Your task to perform on an android device: Search for sushi restaurants on Maps Image 0: 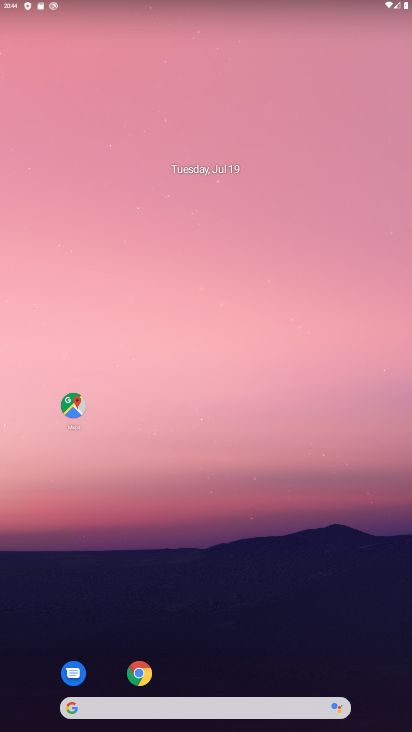
Step 0: click (77, 404)
Your task to perform on an android device: Search for sushi restaurants on Maps Image 1: 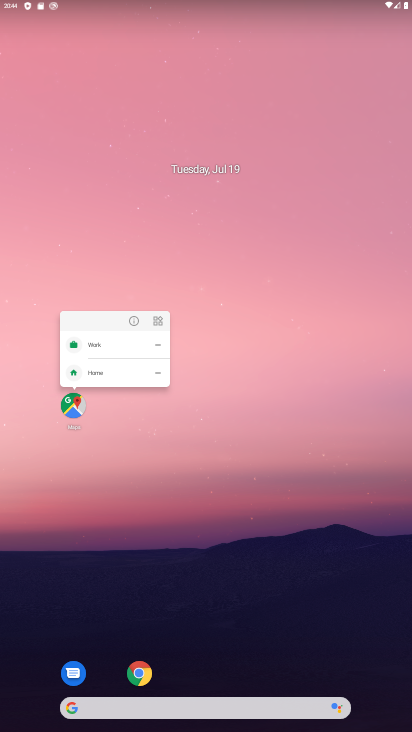
Step 1: click (76, 403)
Your task to perform on an android device: Search for sushi restaurants on Maps Image 2: 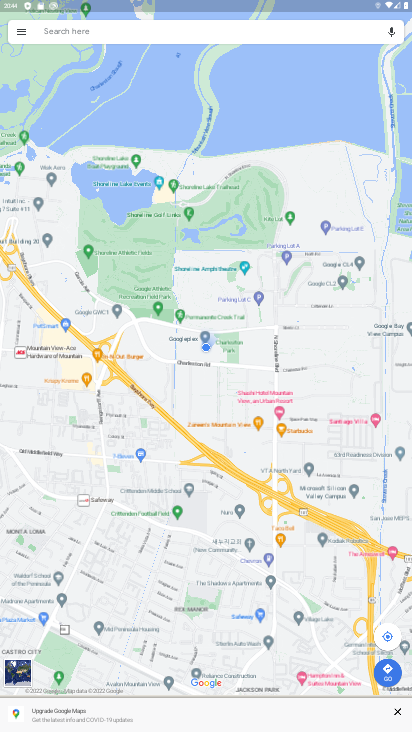
Step 2: click (162, 25)
Your task to perform on an android device: Search for sushi restaurants on Maps Image 3: 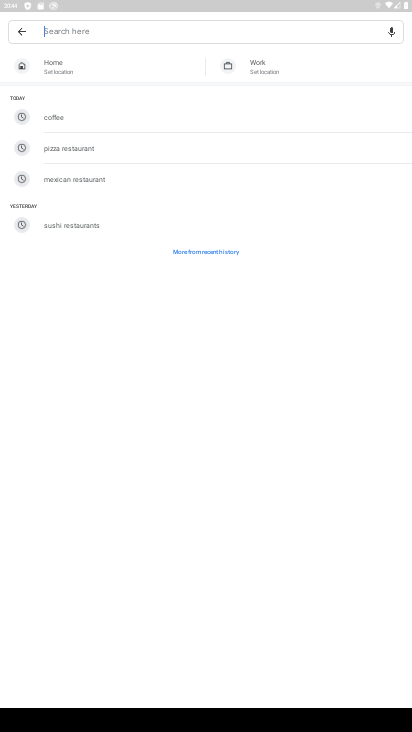
Step 3: type "sushi restaurants"
Your task to perform on an android device: Search for sushi restaurants on Maps Image 4: 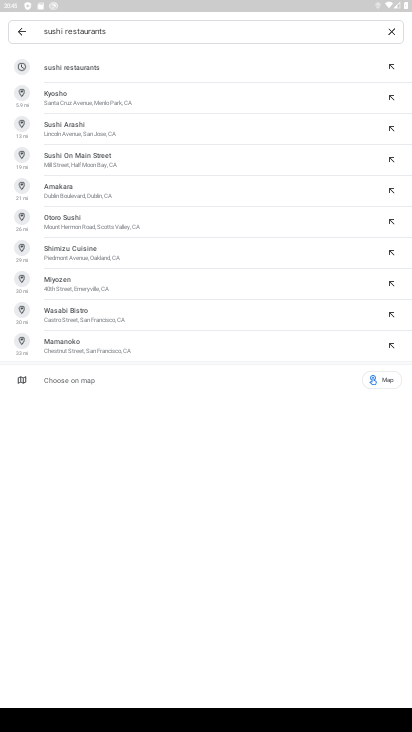
Step 4: click (121, 59)
Your task to perform on an android device: Search for sushi restaurants on Maps Image 5: 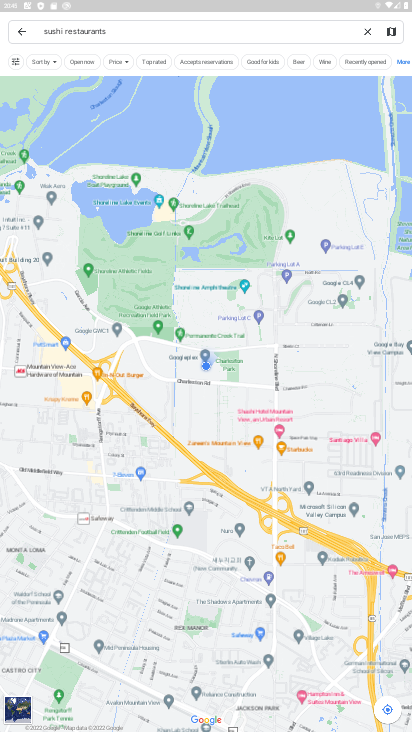
Step 5: task complete